Your task to perform on an android device: move a message to another label in the gmail app Image 0: 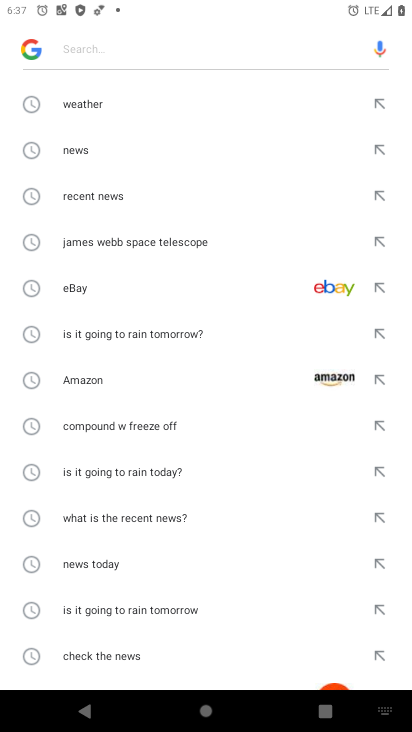
Step 0: press home button
Your task to perform on an android device: move a message to another label in the gmail app Image 1: 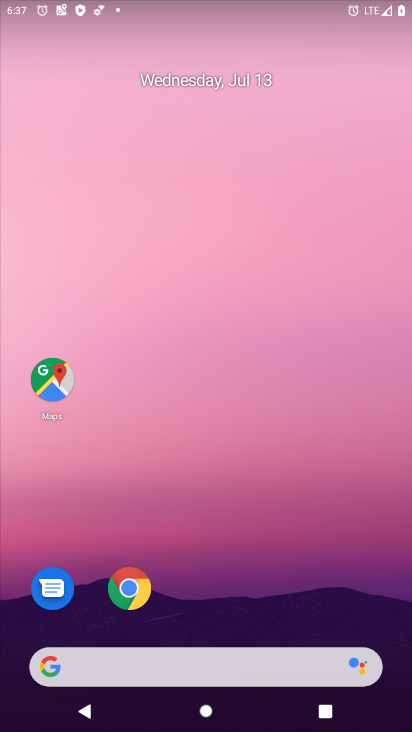
Step 1: drag from (203, 362) to (187, 24)
Your task to perform on an android device: move a message to another label in the gmail app Image 2: 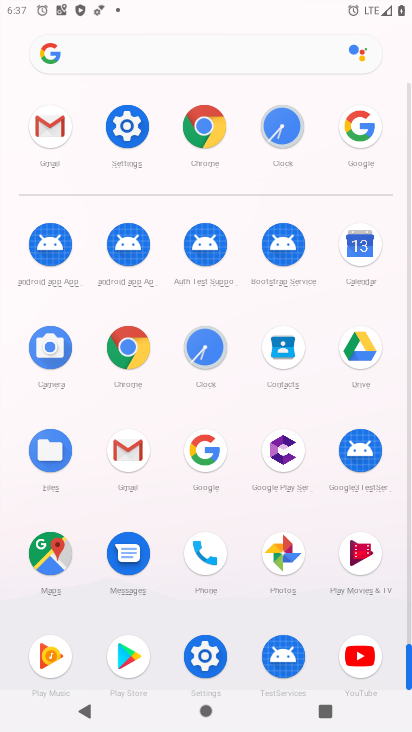
Step 2: click (58, 122)
Your task to perform on an android device: move a message to another label in the gmail app Image 3: 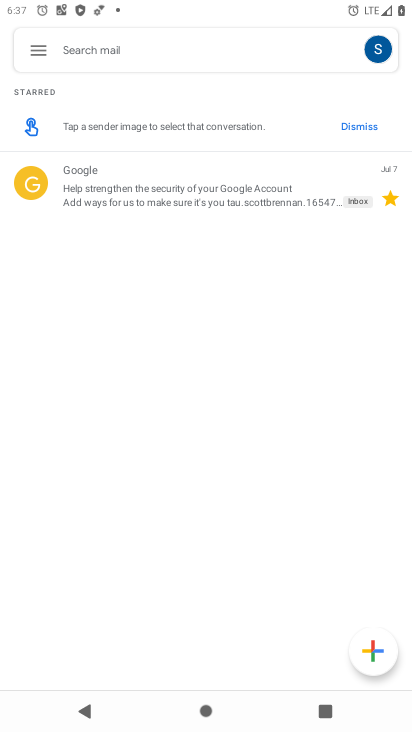
Step 3: click (197, 190)
Your task to perform on an android device: move a message to another label in the gmail app Image 4: 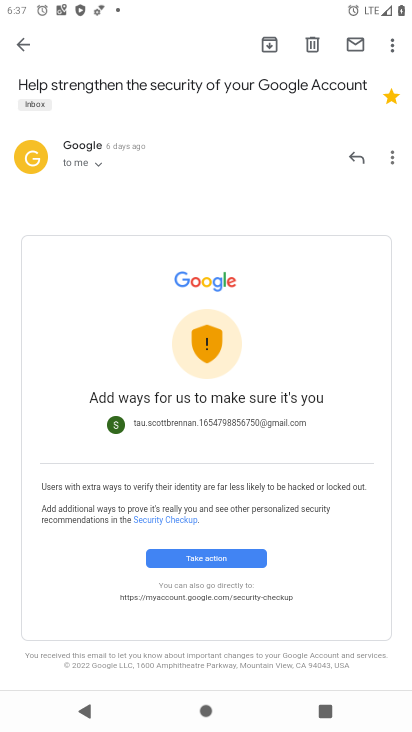
Step 4: click (394, 45)
Your task to perform on an android device: move a message to another label in the gmail app Image 5: 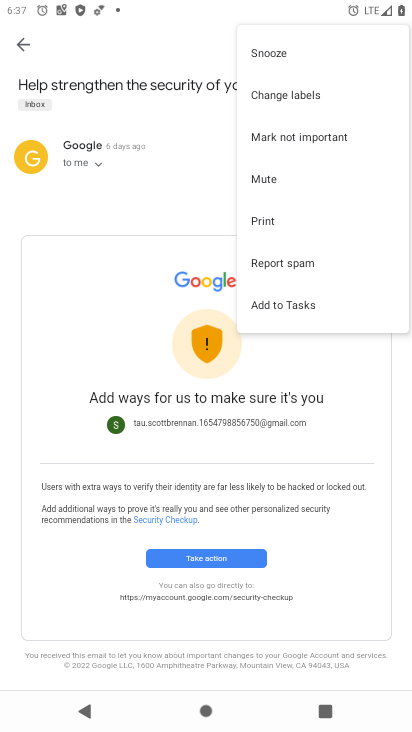
Step 5: click (164, 347)
Your task to perform on an android device: move a message to another label in the gmail app Image 6: 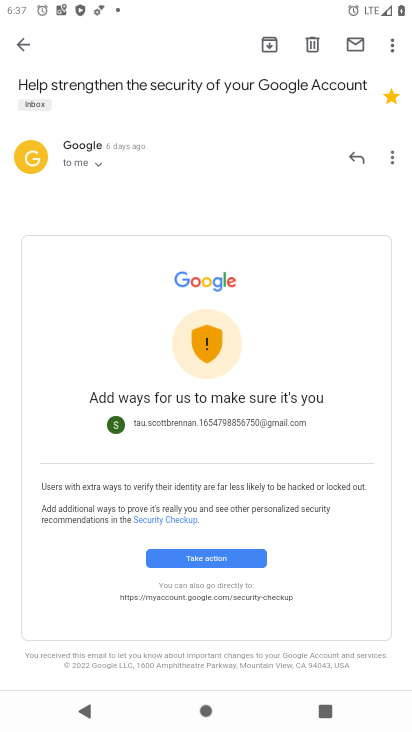
Step 6: click (389, 154)
Your task to perform on an android device: move a message to another label in the gmail app Image 7: 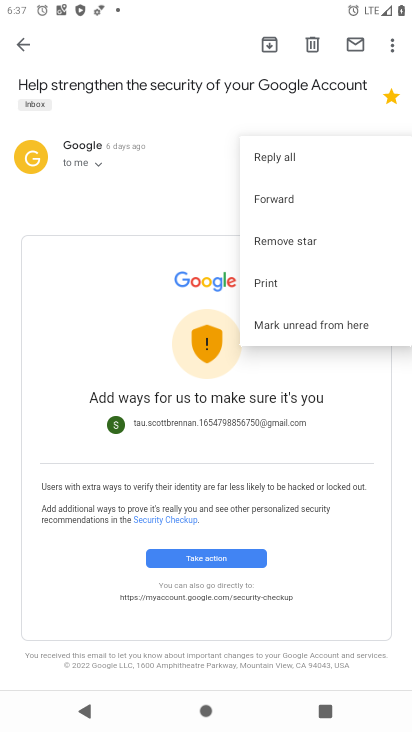
Step 7: click (182, 236)
Your task to perform on an android device: move a message to another label in the gmail app Image 8: 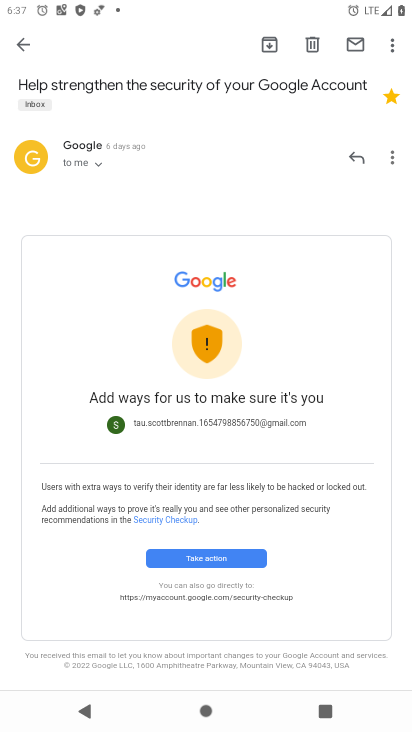
Step 8: click (38, 103)
Your task to perform on an android device: move a message to another label in the gmail app Image 9: 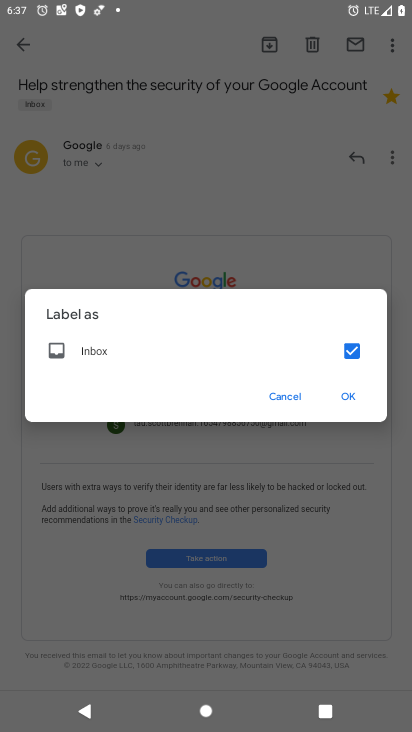
Step 9: click (354, 347)
Your task to perform on an android device: move a message to another label in the gmail app Image 10: 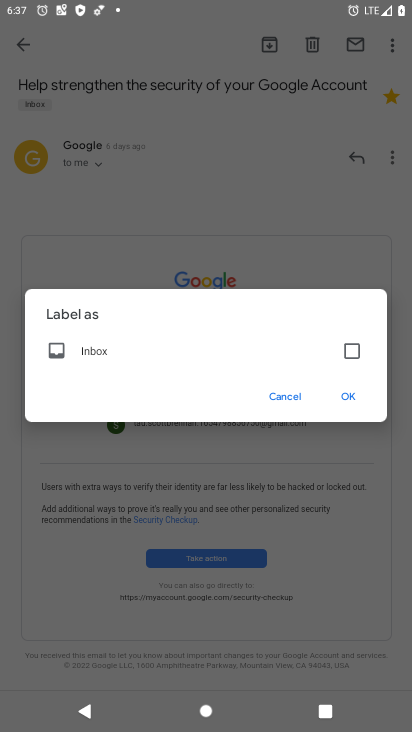
Step 10: click (349, 387)
Your task to perform on an android device: move a message to another label in the gmail app Image 11: 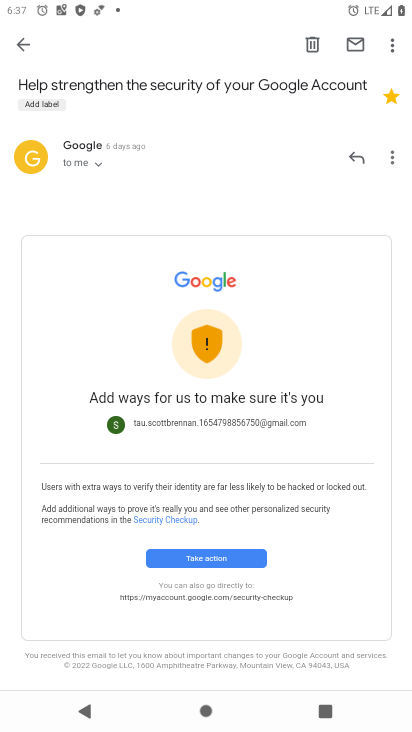
Step 11: task complete